Your task to perform on an android device: turn on priority inbox in the gmail app Image 0: 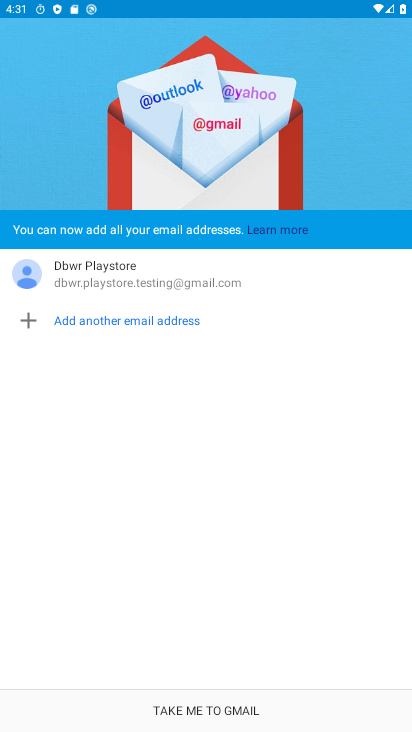
Step 0: click (198, 709)
Your task to perform on an android device: turn on priority inbox in the gmail app Image 1: 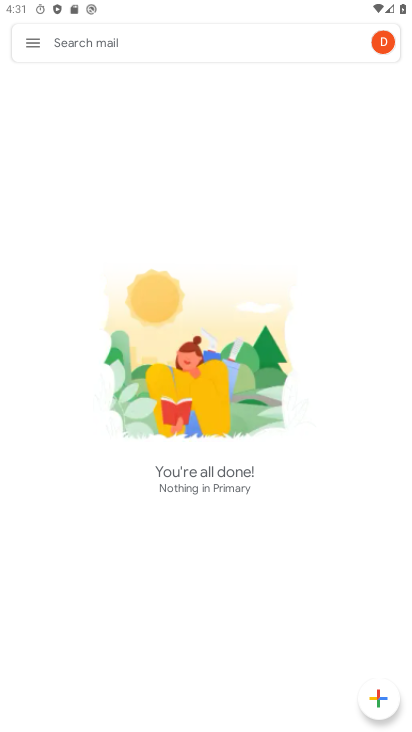
Step 1: click (36, 42)
Your task to perform on an android device: turn on priority inbox in the gmail app Image 2: 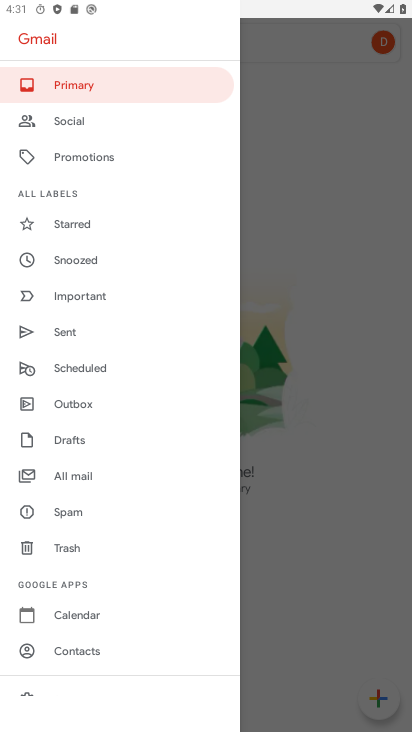
Step 2: drag from (69, 657) to (101, 200)
Your task to perform on an android device: turn on priority inbox in the gmail app Image 3: 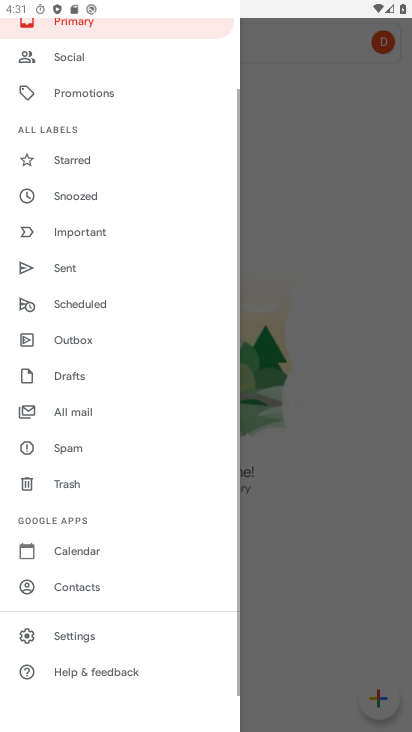
Step 3: click (77, 647)
Your task to perform on an android device: turn on priority inbox in the gmail app Image 4: 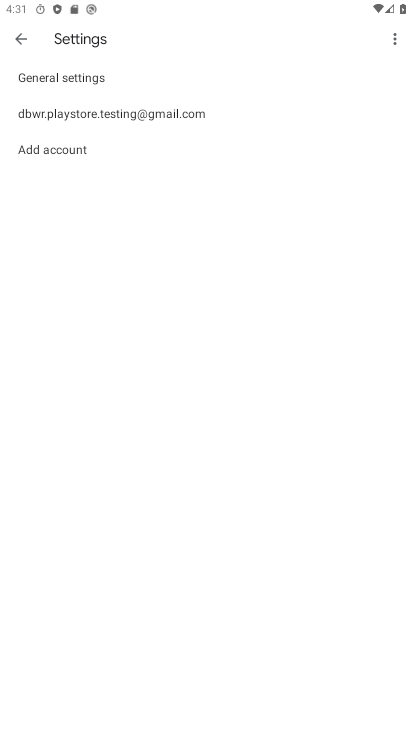
Step 4: click (83, 115)
Your task to perform on an android device: turn on priority inbox in the gmail app Image 5: 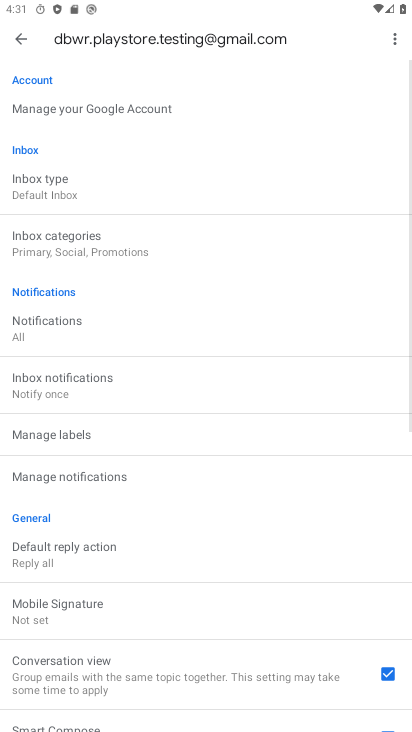
Step 5: click (52, 188)
Your task to perform on an android device: turn on priority inbox in the gmail app Image 6: 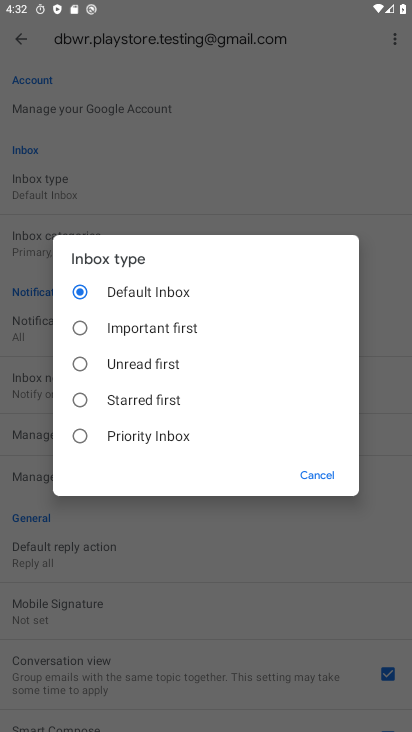
Step 6: click (119, 430)
Your task to perform on an android device: turn on priority inbox in the gmail app Image 7: 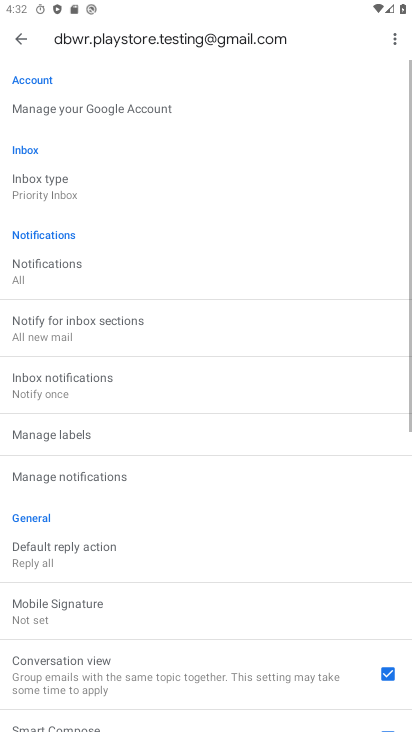
Step 7: task complete